Your task to perform on an android device: What's the weather going to be this weekend? Image 0: 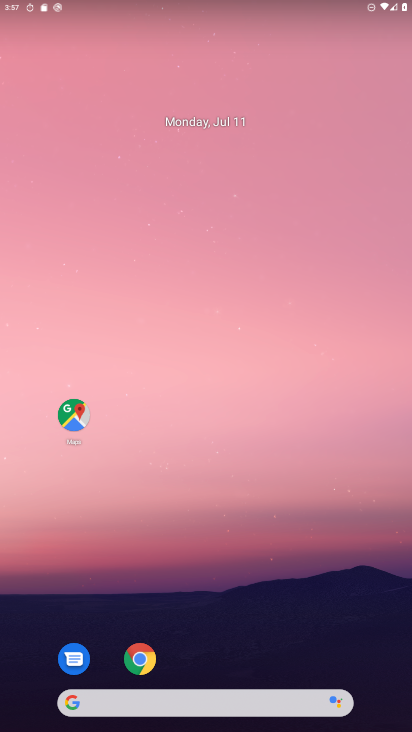
Step 0: drag from (253, 638) to (259, 198)
Your task to perform on an android device: What's the weather going to be this weekend? Image 1: 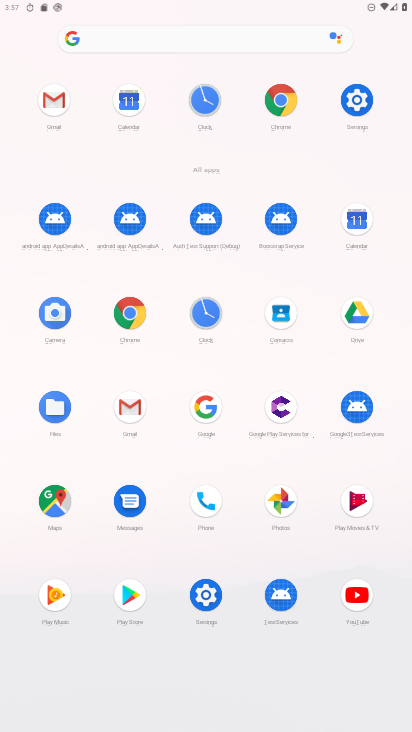
Step 1: click (303, 86)
Your task to perform on an android device: What's the weather going to be this weekend? Image 2: 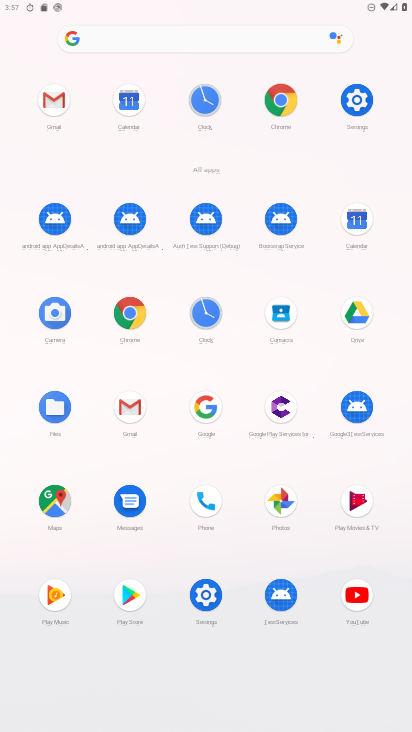
Step 2: drag from (303, 86) to (281, 114)
Your task to perform on an android device: What's the weather going to be this weekend? Image 3: 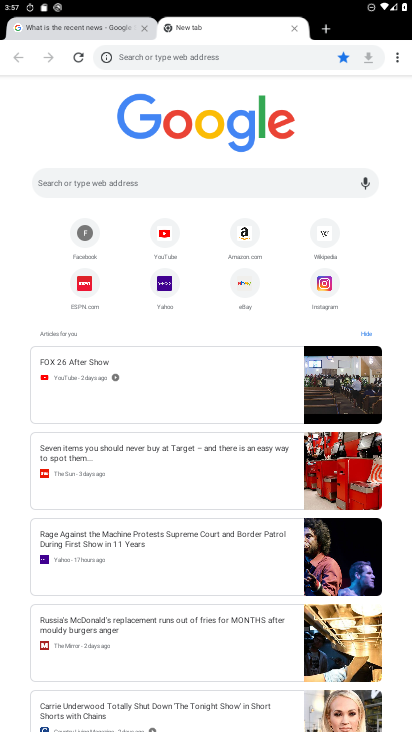
Step 3: click (215, 174)
Your task to perform on an android device: What's the weather going to be this weekend? Image 4: 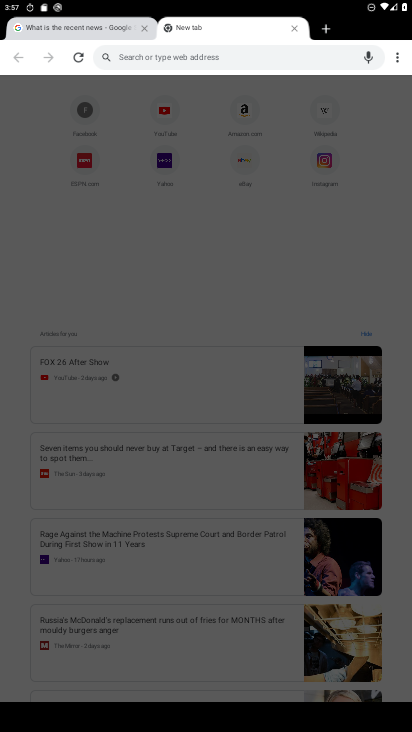
Step 4: type "What's the weather going to be this weekend  "
Your task to perform on an android device: What's the weather going to be this weekend? Image 5: 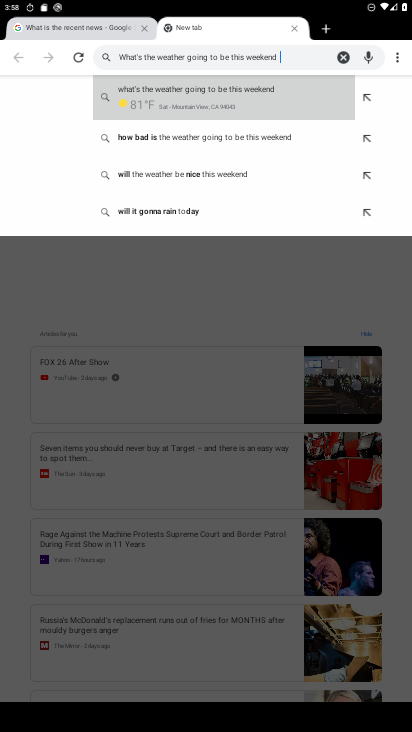
Step 5: click (196, 95)
Your task to perform on an android device: What's the weather going to be this weekend? Image 6: 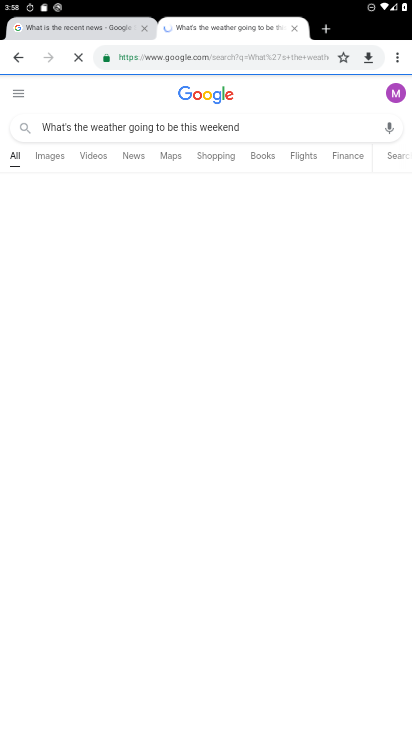
Step 6: task complete